Your task to perform on an android device: Turn on the flashlight Image 0: 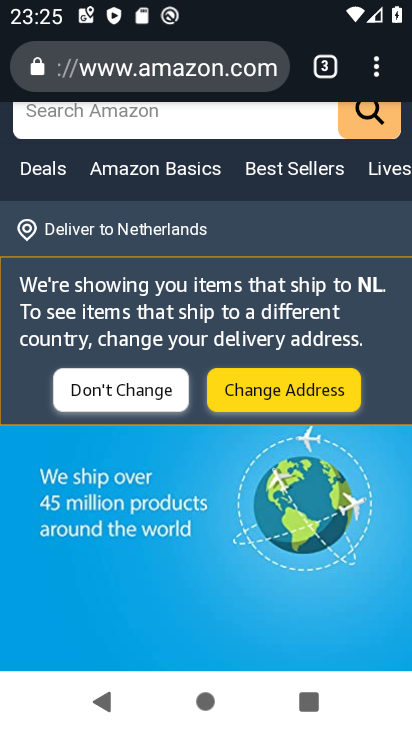
Step 0: press home button
Your task to perform on an android device: Turn on the flashlight Image 1: 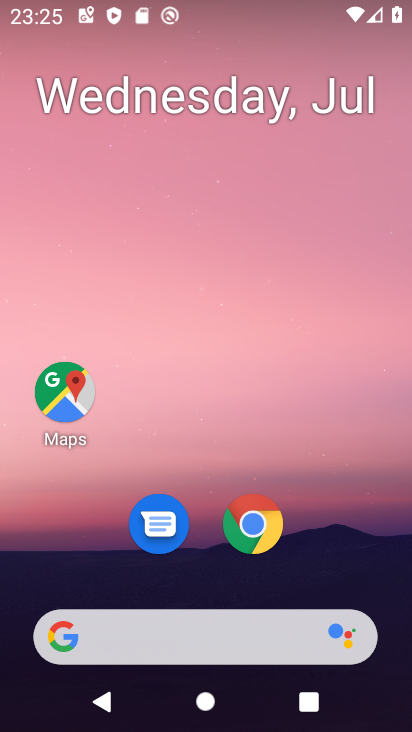
Step 1: task complete